Your task to perform on an android device: create a new album in the google photos Image 0: 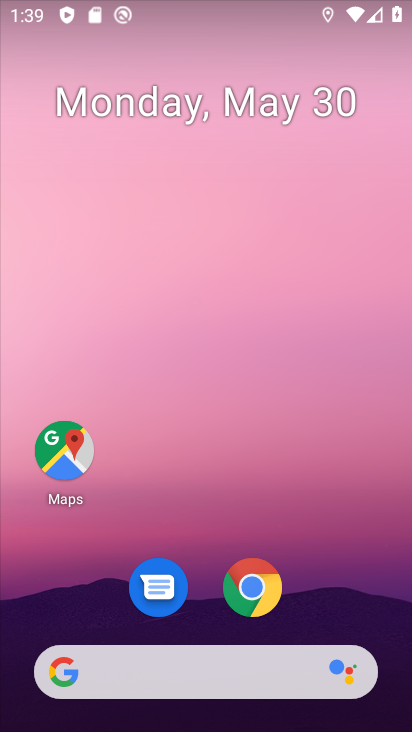
Step 0: drag from (106, 727) to (9, 47)
Your task to perform on an android device: create a new album in the google photos Image 1: 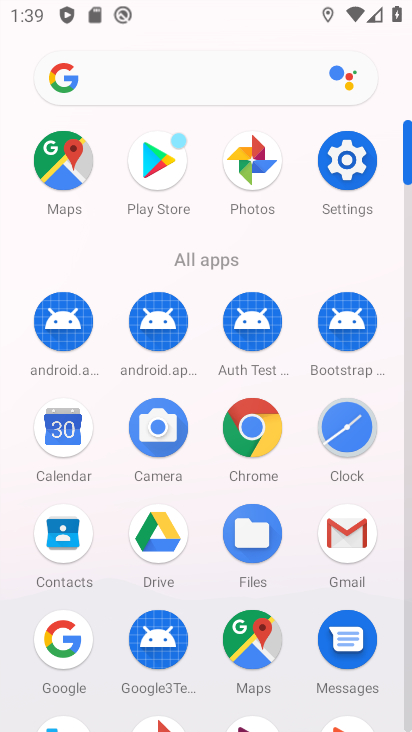
Step 1: click (262, 179)
Your task to perform on an android device: create a new album in the google photos Image 2: 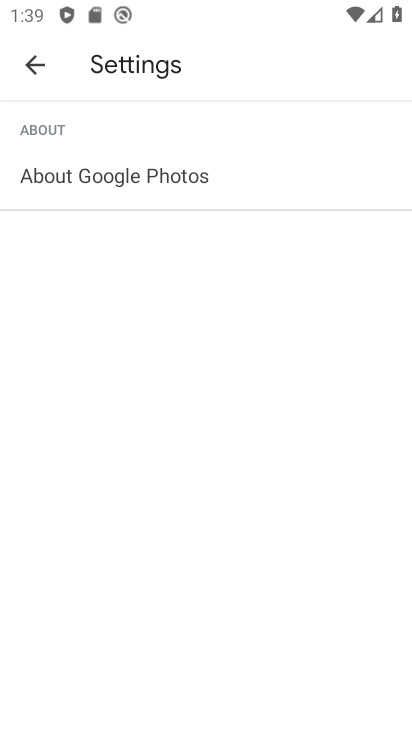
Step 2: click (46, 72)
Your task to perform on an android device: create a new album in the google photos Image 3: 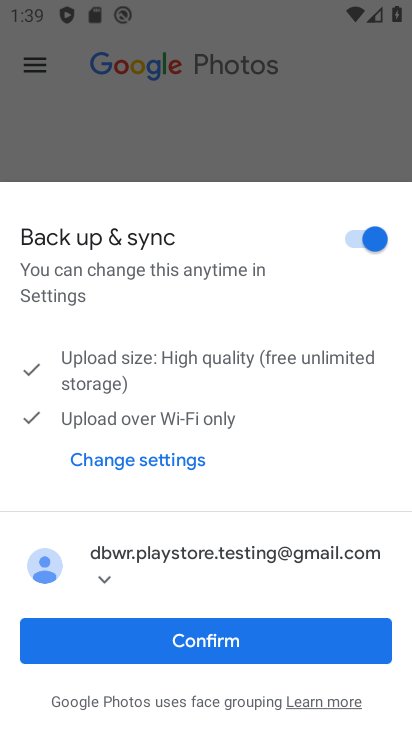
Step 3: click (182, 638)
Your task to perform on an android device: create a new album in the google photos Image 4: 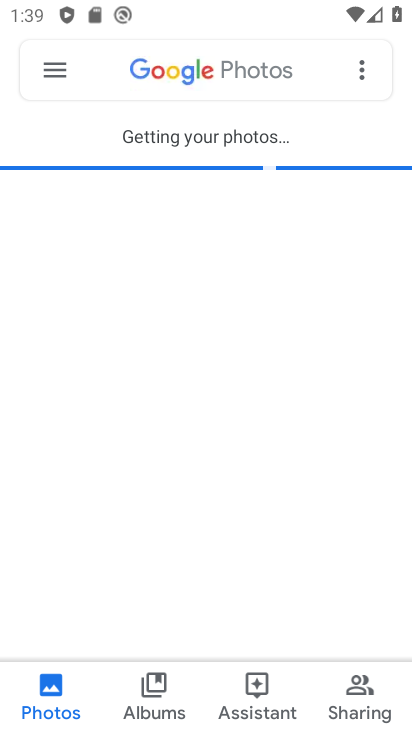
Step 4: click (40, 73)
Your task to perform on an android device: create a new album in the google photos Image 5: 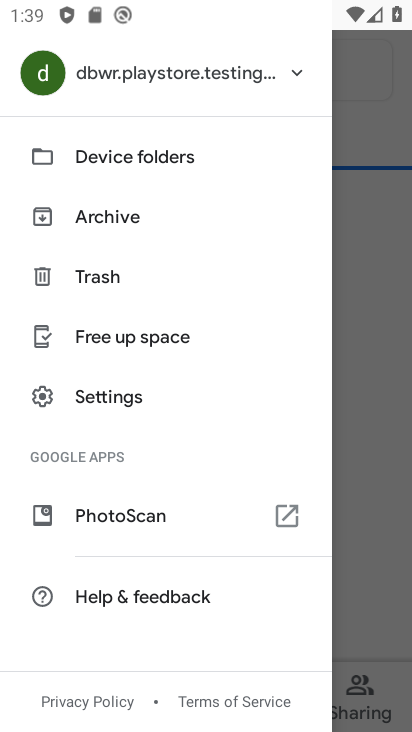
Step 5: click (374, 390)
Your task to perform on an android device: create a new album in the google photos Image 6: 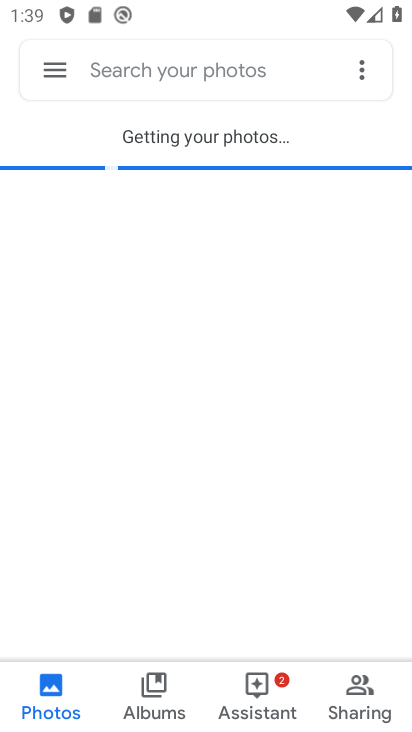
Step 6: click (146, 701)
Your task to perform on an android device: create a new album in the google photos Image 7: 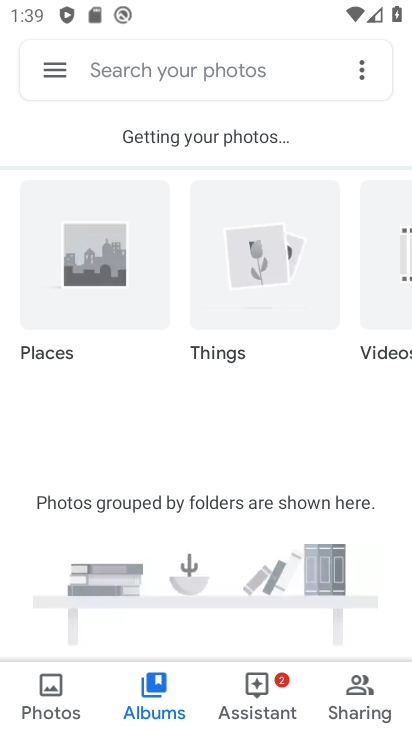
Step 7: click (365, 70)
Your task to perform on an android device: create a new album in the google photos Image 8: 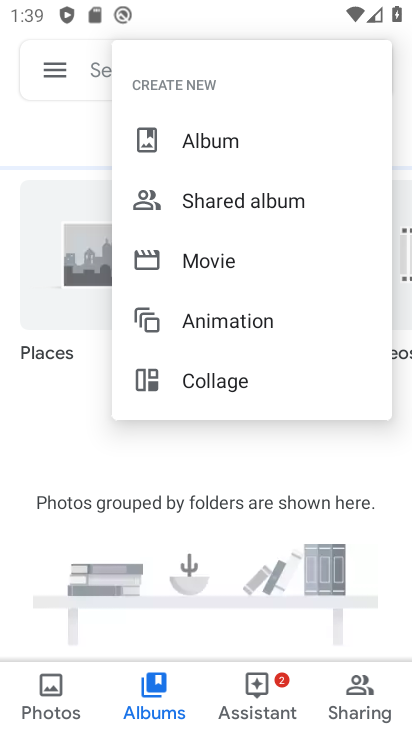
Step 8: click (211, 158)
Your task to perform on an android device: create a new album in the google photos Image 9: 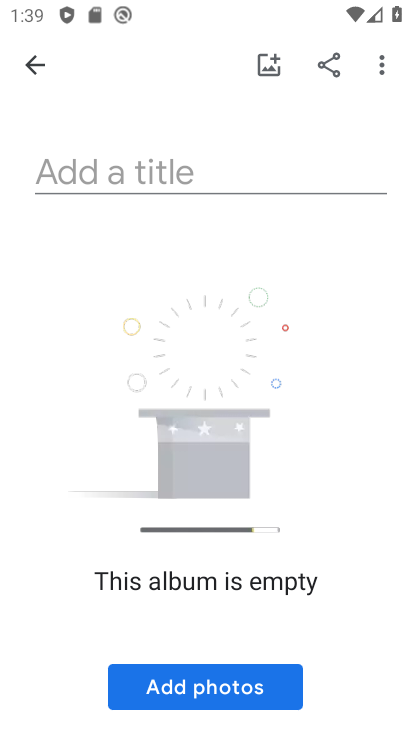
Step 9: click (149, 172)
Your task to perform on an android device: create a new album in the google photos Image 10: 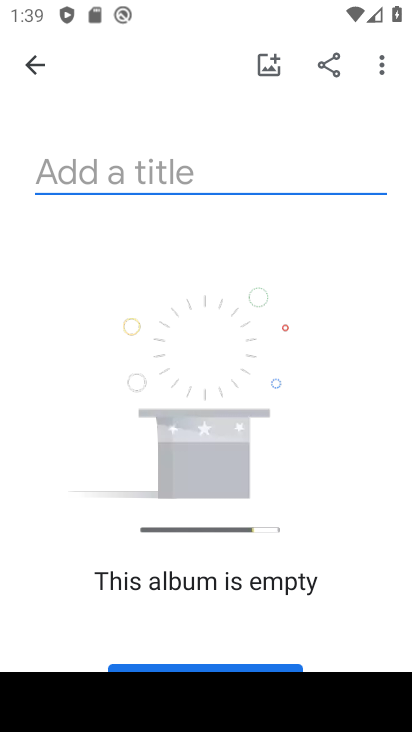
Step 10: type "AS"
Your task to perform on an android device: create a new album in the google photos Image 11: 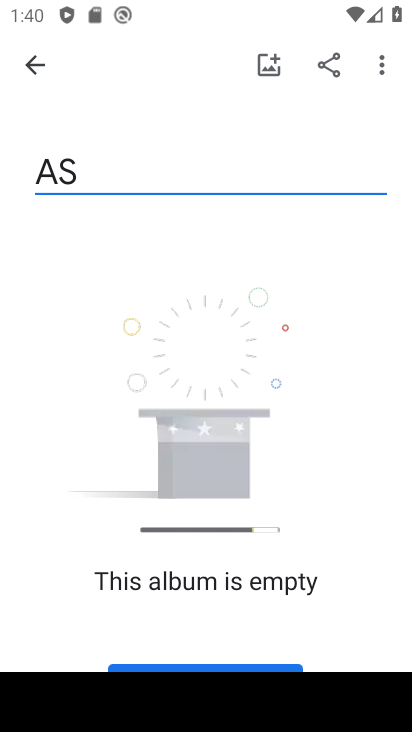
Step 11: click (195, 664)
Your task to perform on an android device: create a new album in the google photos Image 12: 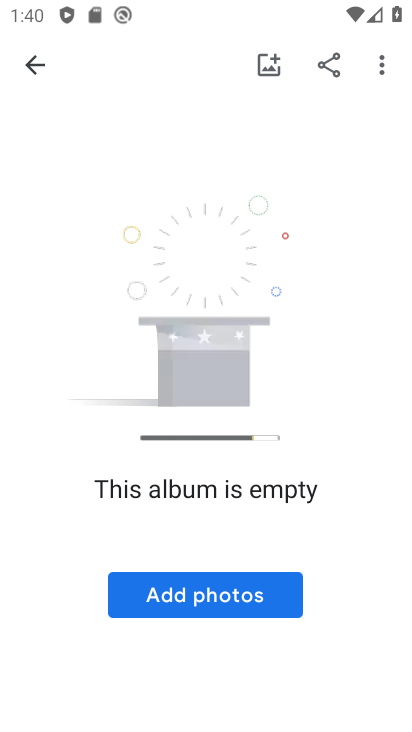
Step 12: click (196, 597)
Your task to perform on an android device: create a new album in the google photos Image 13: 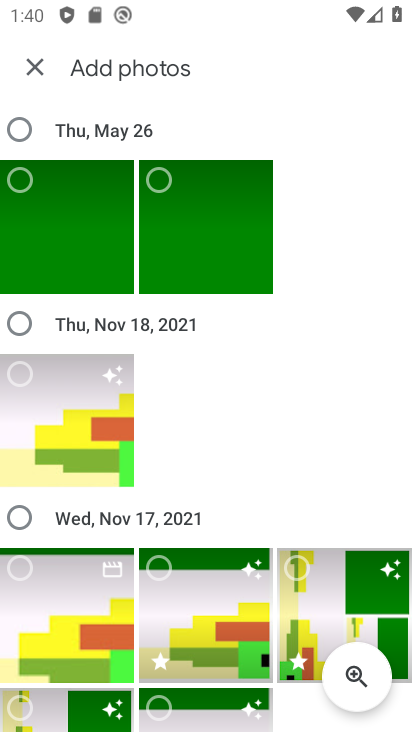
Step 13: click (64, 256)
Your task to perform on an android device: create a new album in the google photos Image 14: 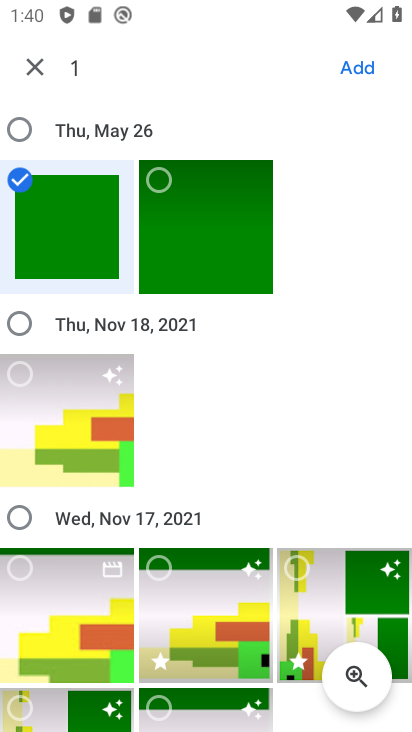
Step 14: click (160, 188)
Your task to perform on an android device: create a new album in the google photos Image 15: 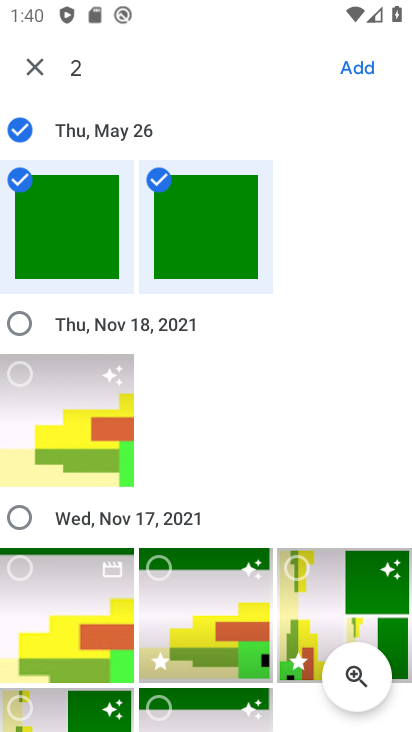
Step 15: click (355, 66)
Your task to perform on an android device: create a new album in the google photos Image 16: 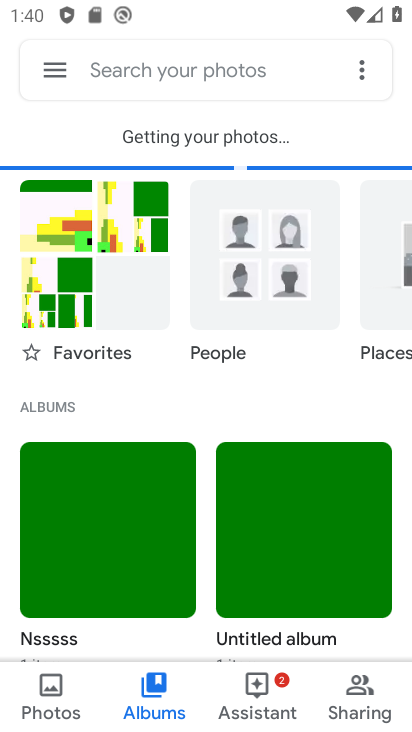
Step 16: task complete